Your task to perform on an android device: Open Amazon Image 0: 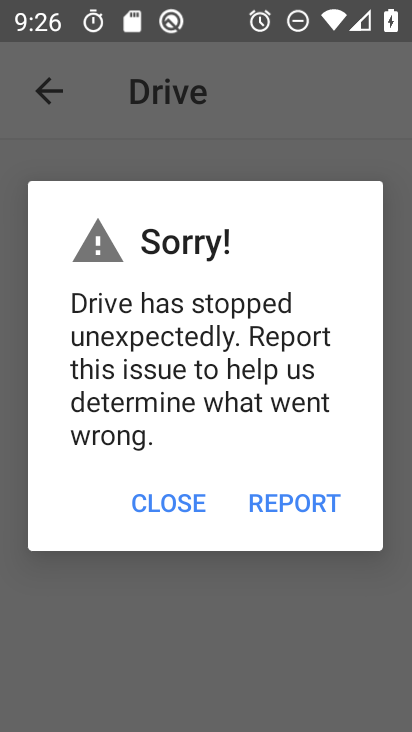
Step 0: press home button
Your task to perform on an android device: Open Amazon Image 1: 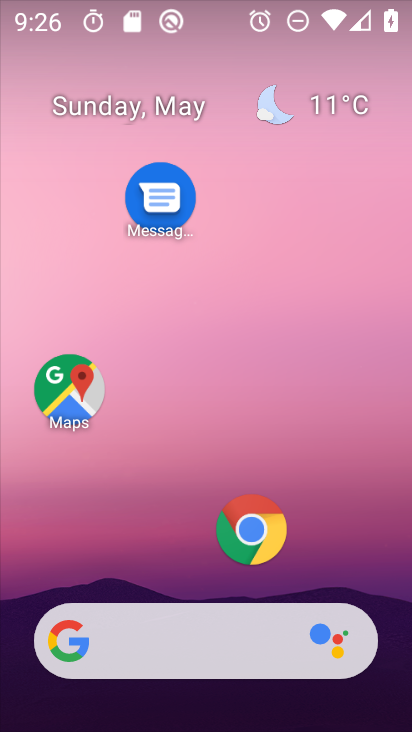
Step 1: drag from (203, 570) to (269, 94)
Your task to perform on an android device: Open Amazon Image 2: 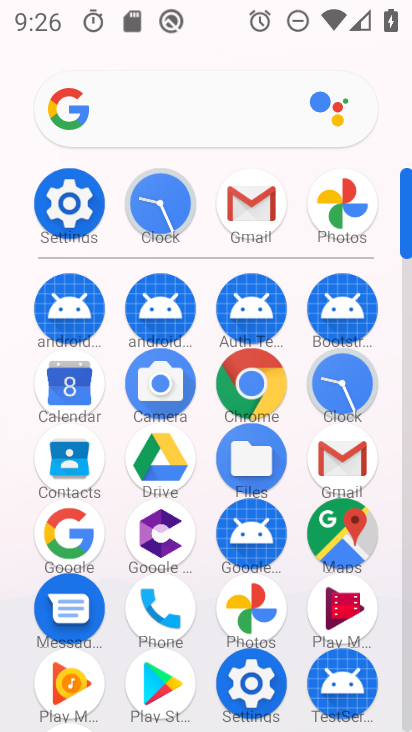
Step 2: click (242, 383)
Your task to perform on an android device: Open Amazon Image 3: 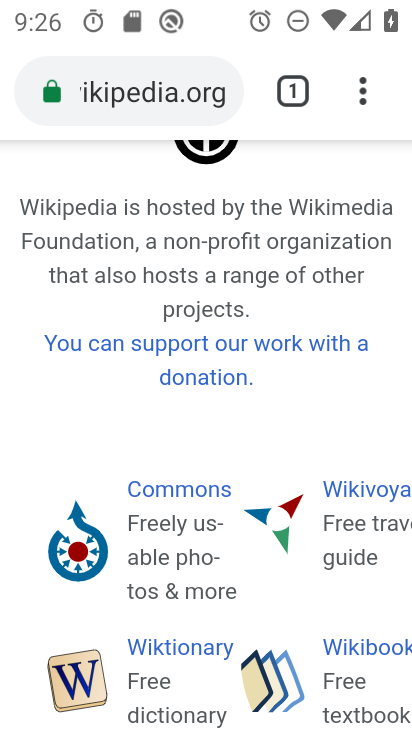
Step 3: press back button
Your task to perform on an android device: Open Amazon Image 4: 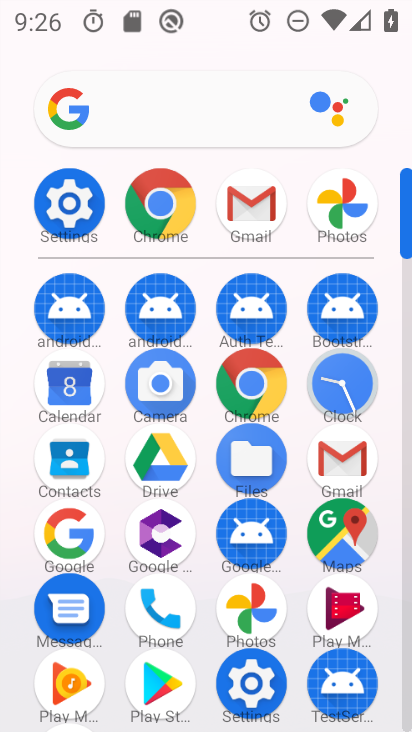
Step 4: click (236, 375)
Your task to perform on an android device: Open Amazon Image 5: 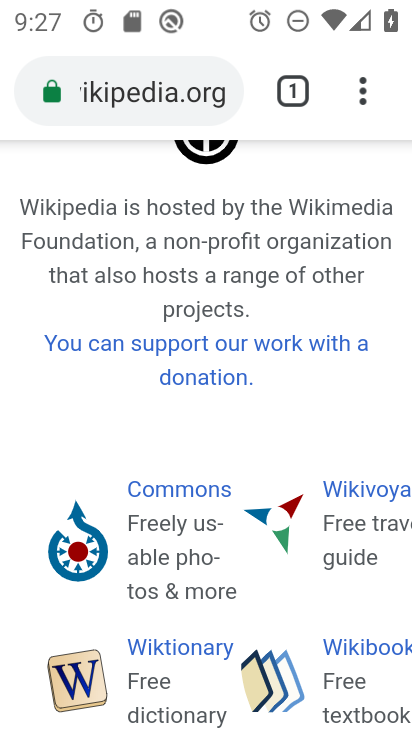
Step 5: press back button
Your task to perform on an android device: Open Amazon Image 6: 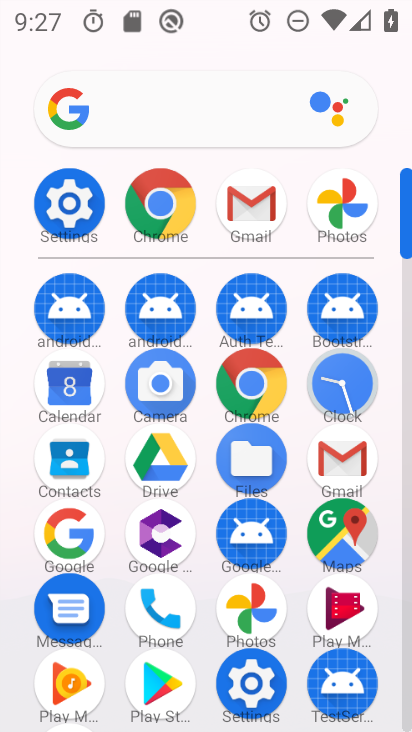
Step 6: click (244, 383)
Your task to perform on an android device: Open Amazon Image 7: 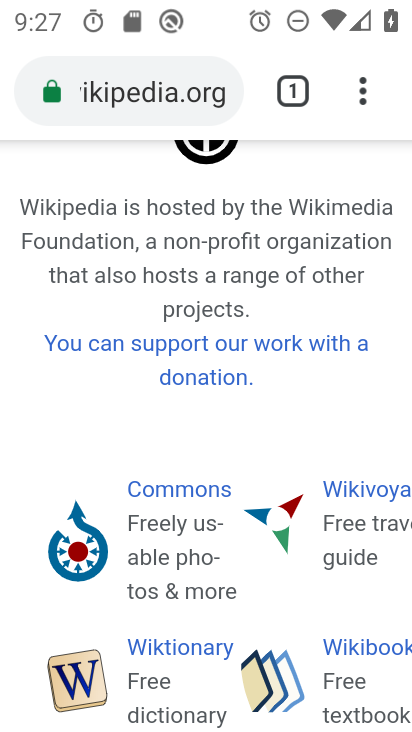
Step 7: click (277, 90)
Your task to perform on an android device: Open Amazon Image 8: 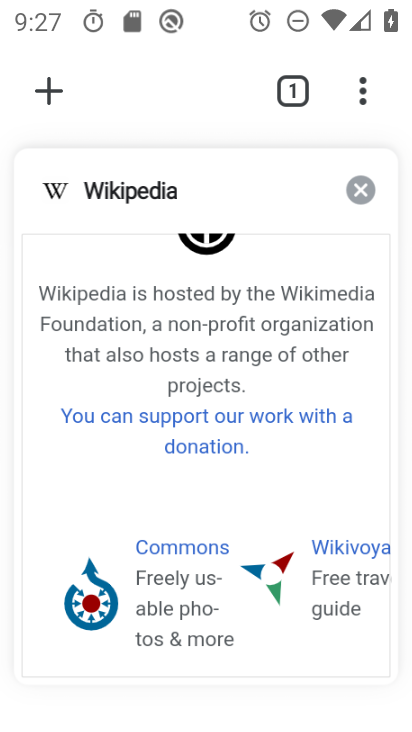
Step 8: click (50, 82)
Your task to perform on an android device: Open Amazon Image 9: 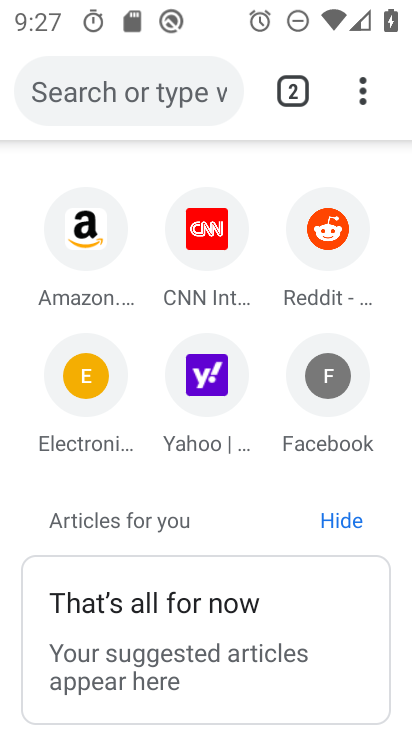
Step 9: click (98, 225)
Your task to perform on an android device: Open Amazon Image 10: 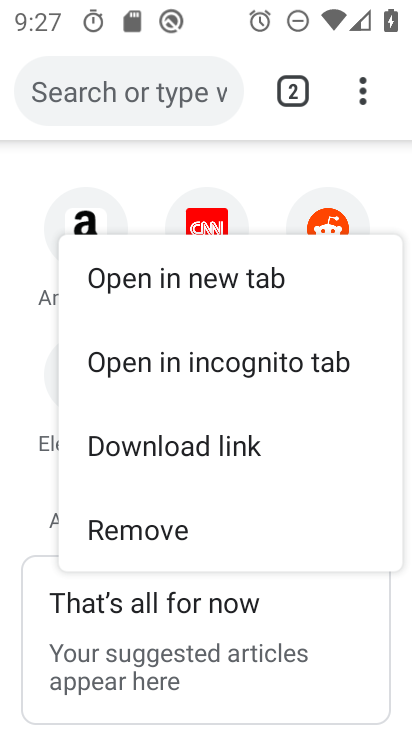
Step 10: click (48, 221)
Your task to perform on an android device: Open Amazon Image 11: 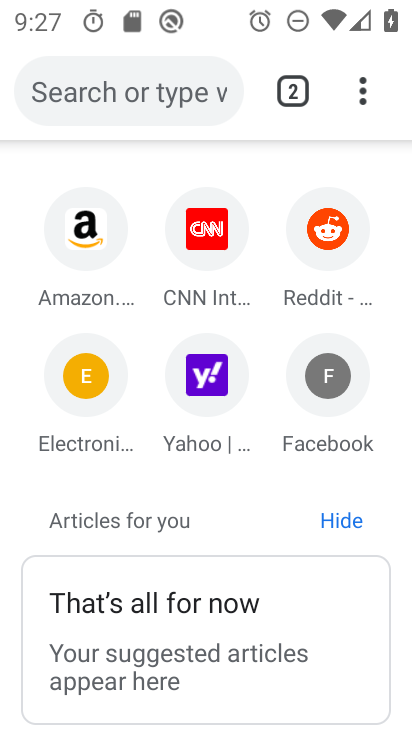
Step 11: click (74, 253)
Your task to perform on an android device: Open Amazon Image 12: 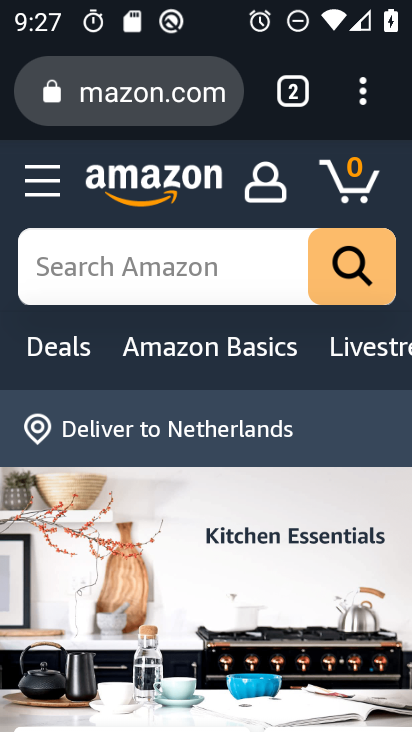
Step 12: task complete